Your task to perform on an android device: Open Wikipedia Image 0: 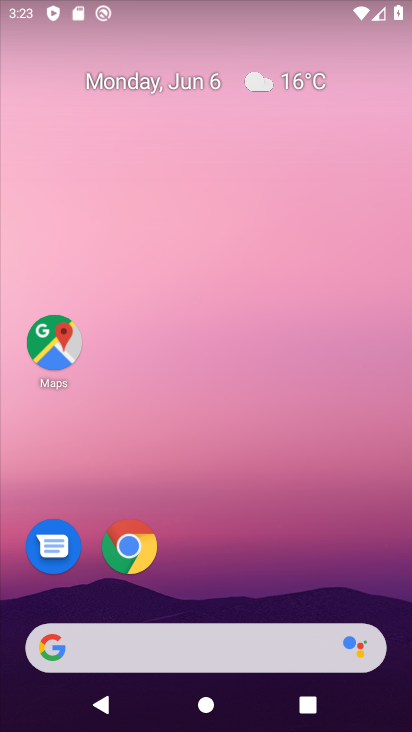
Step 0: drag from (262, 512) to (269, 24)
Your task to perform on an android device: Open Wikipedia Image 1: 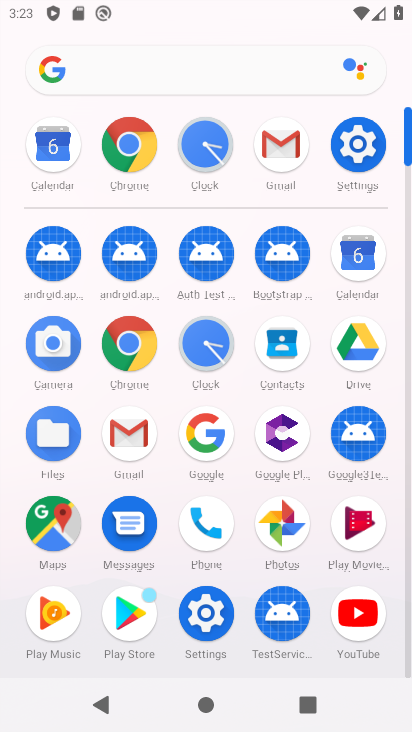
Step 1: click (126, 139)
Your task to perform on an android device: Open Wikipedia Image 2: 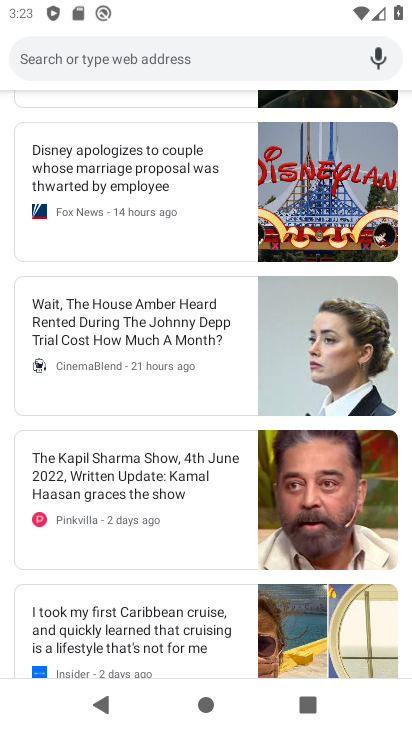
Step 2: drag from (125, 157) to (196, 690)
Your task to perform on an android device: Open Wikipedia Image 3: 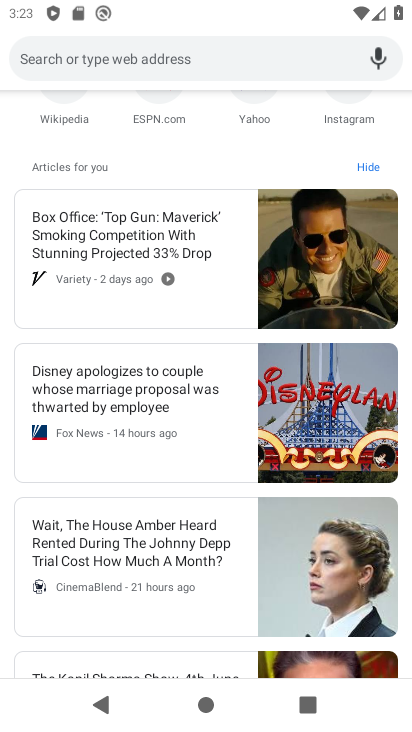
Step 3: drag from (121, 197) to (199, 646)
Your task to perform on an android device: Open Wikipedia Image 4: 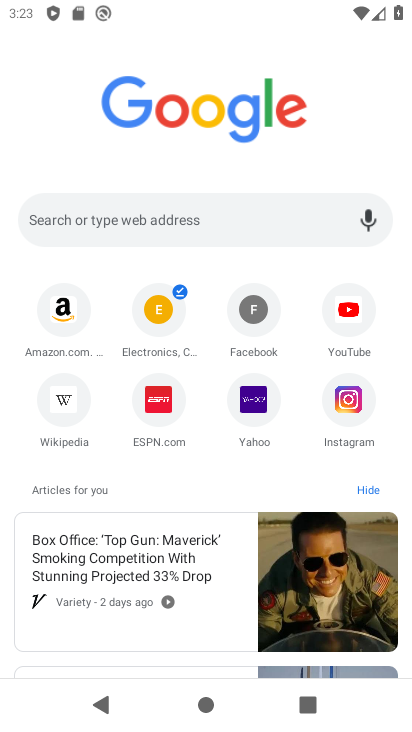
Step 4: click (64, 392)
Your task to perform on an android device: Open Wikipedia Image 5: 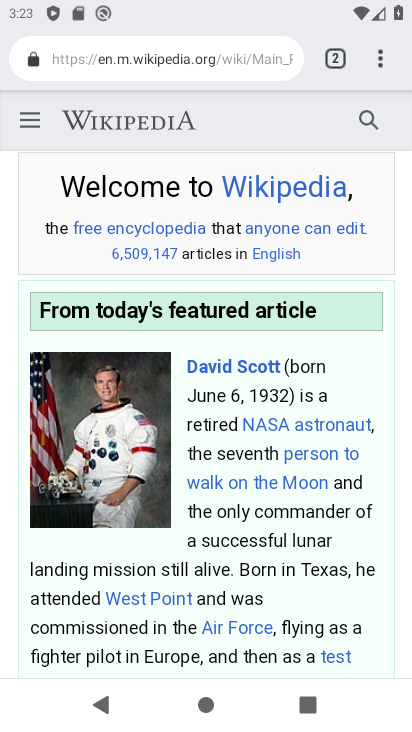
Step 5: task complete